Your task to perform on an android device: turn on wifi Image 0: 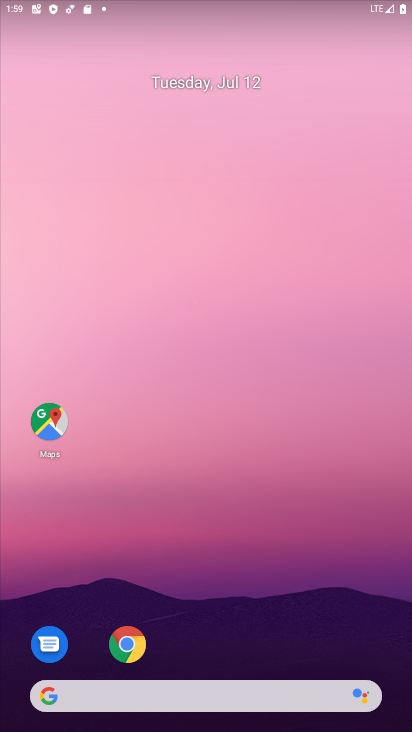
Step 0: drag from (172, 679) to (122, 199)
Your task to perform on an android device: turn on wifi Image 1: 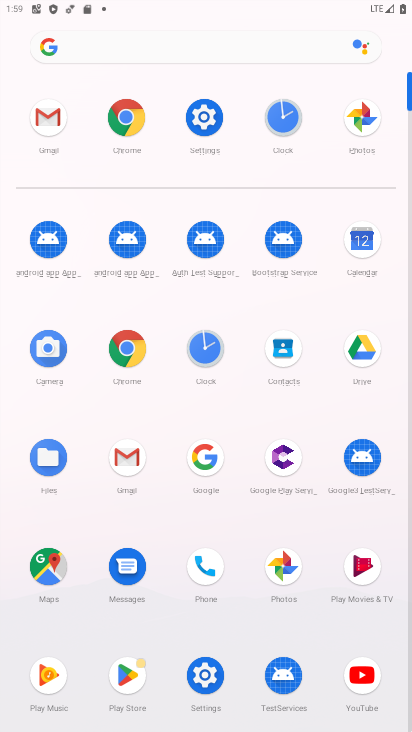
Step 1: click (203, 121)
Your task to perform on an android device: turn on wifi Image 2: 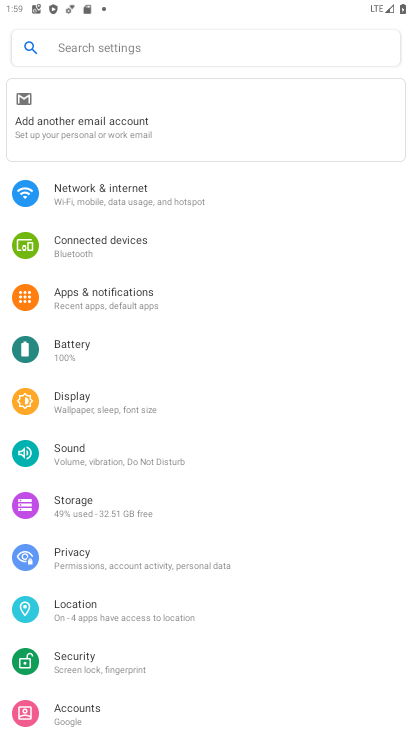
Step 2: click (65, 187)
Your task to perform on an android device: turn on wifi Image 3: 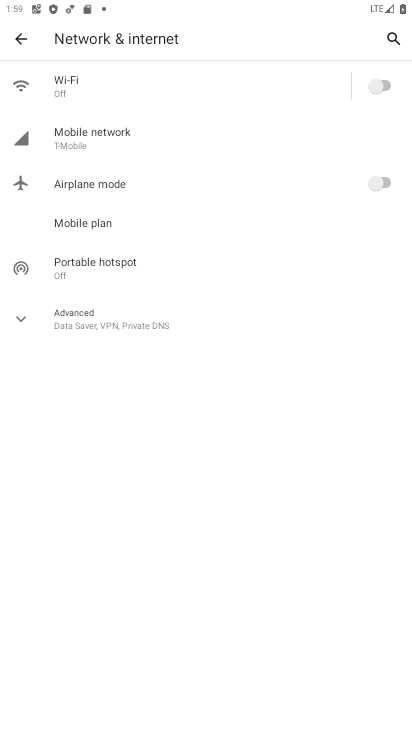
Step 3: click (383, 84)
Your task to perform on an android device: turn on wifi Image 4: 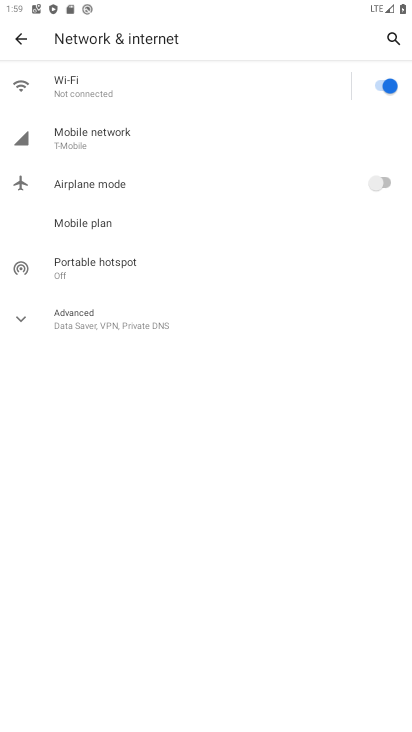
Step 4: task complete